Your task to perform on an android device: Open Chrome and go to settings Image 0: 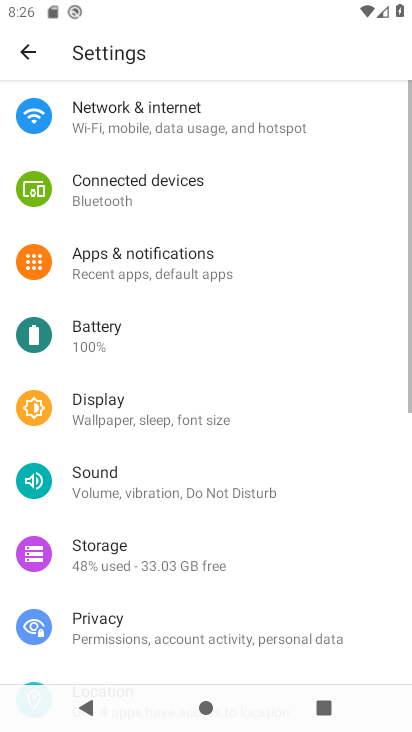
Step 0: press home button
Your task to perform on an android device: Open Chrome and go to settings Image 1: 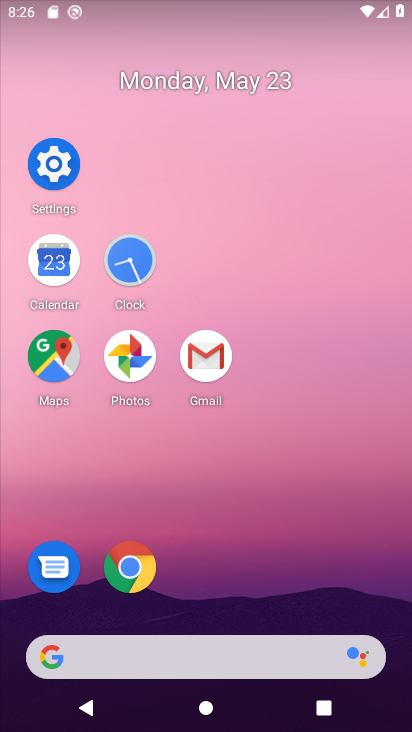
Step 1: click (130, 570)
Your task to perform on an android device: Open Chrome and go to settings Image 2: 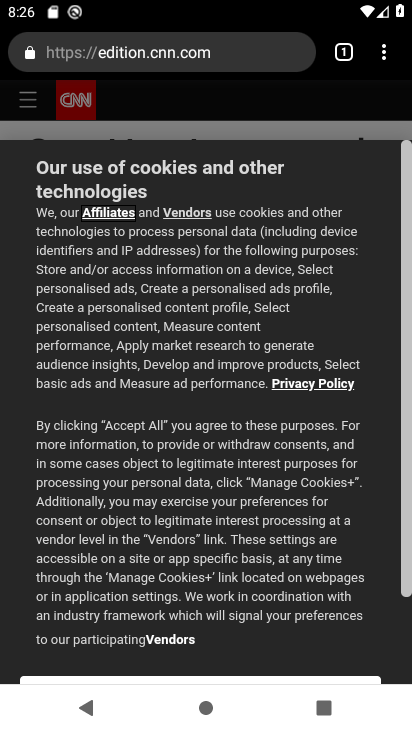
Step 2: click (399, 47)
Your task to perform on an android device: Open Chrome and go to settings Image 3: 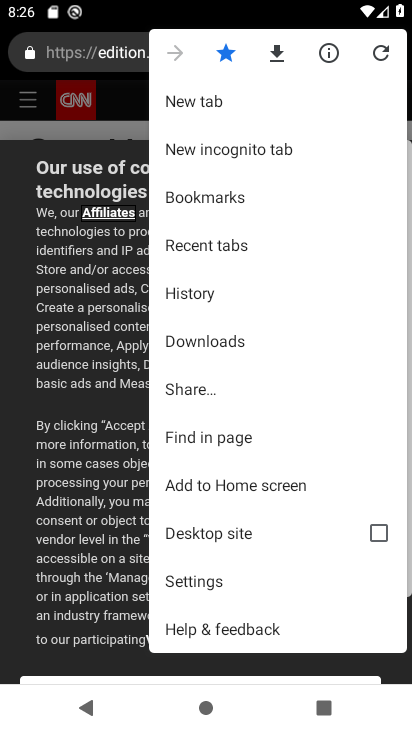
Step 3: click (214, 587)
Your task to perform on an android device: Open Chrome and go to settings Image 4: 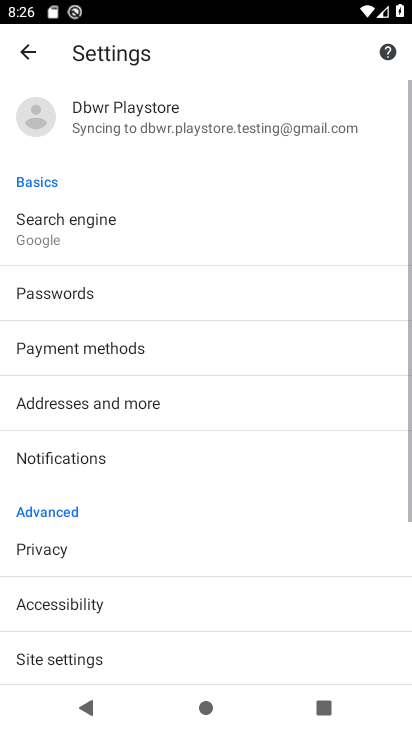
Step 4: task complete